Your task to perform on an android device: turn pop-ups on in chrome Image 0: 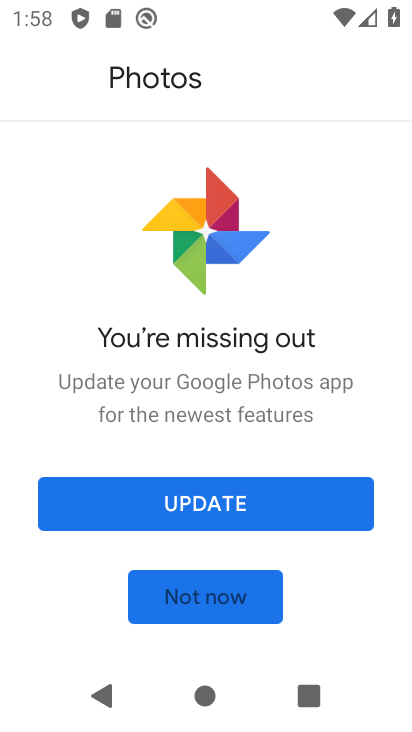
Step 0: click (213, 490)
Your task to perform on an android device: turn pop-ups on in chrome Image 1: 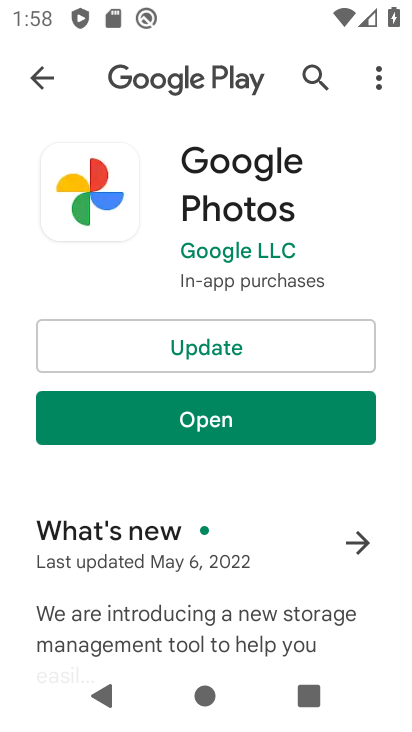
Step 1: press home button
Your task to perform on an android device: turn pop-ups on in chrome Image 2: 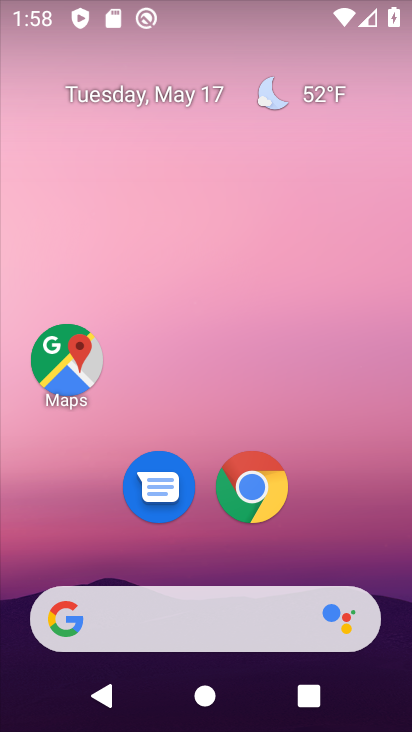
Step 2: click (251, 481)
Your task to perform on an android device: turn pop-ups on in chrome Image 3: 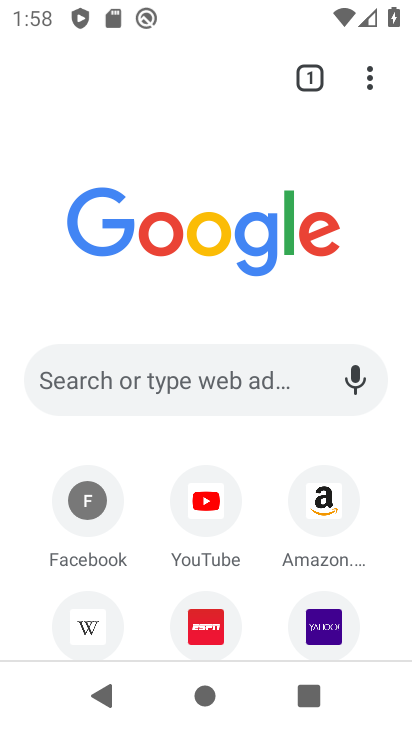
Step 3: click (367, 67)
Your task to perform on an android device: turn pop-ups on in chrome Image 4: 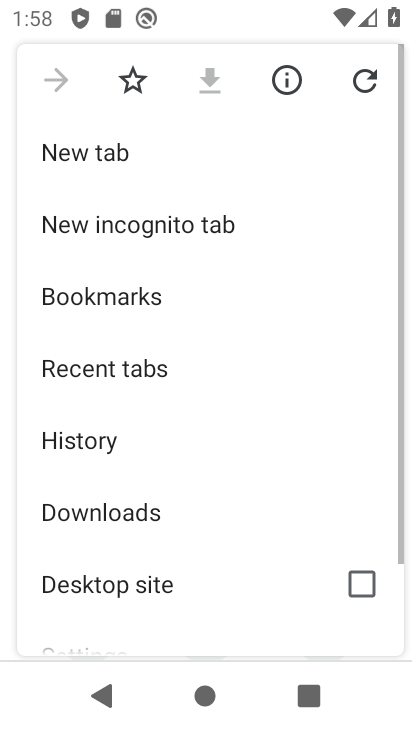
Step 4: drag from (212, 568) to (224, 250)
Your task to perform on an android device: turn pop-ups on in chrome Image 5: 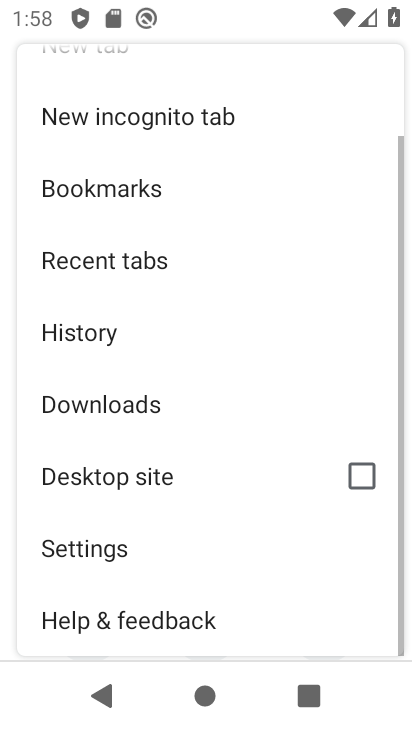
Step 5: drag from (242, 552) to (244, 324)
Your task to perform on an android device: turn pop-ups on in chrome Image 6: 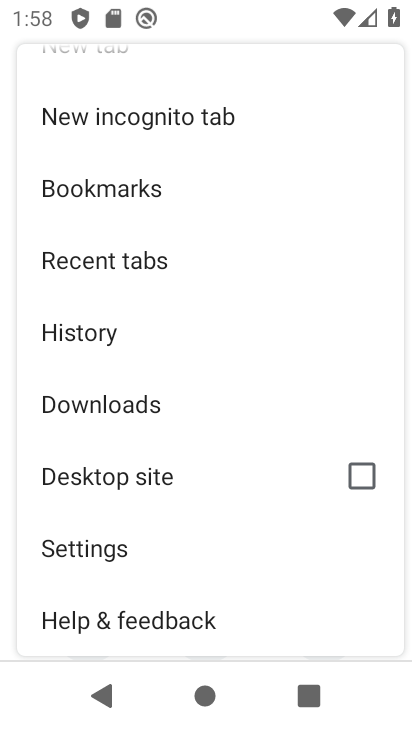
Step 6: click (90, 551)
Your task to perform on an android device: turn pop-ups on in chrome Image 7: 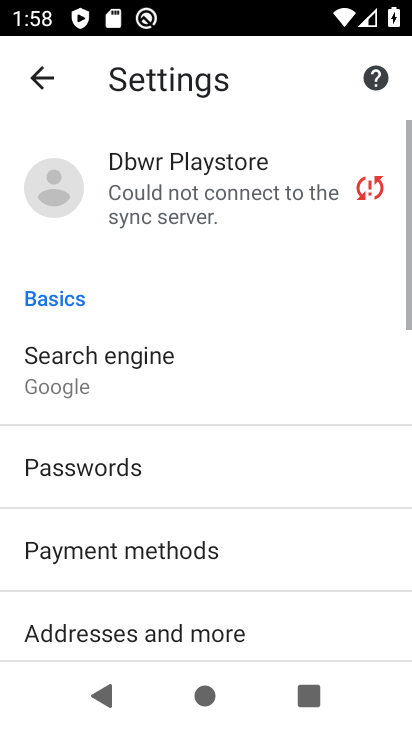
Step 7: drag from (274, 579) to (299, 289)
Your task to perform on an android device: turn pop-ups on in chrome Image 8: 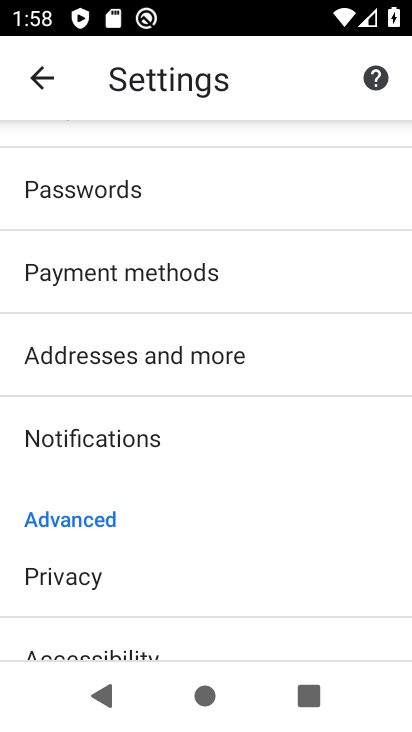
Step 8: drag from (228, 540) to (236, 447)
Your task to perform on an android device: turn pop-ups on in chrome Image 9: 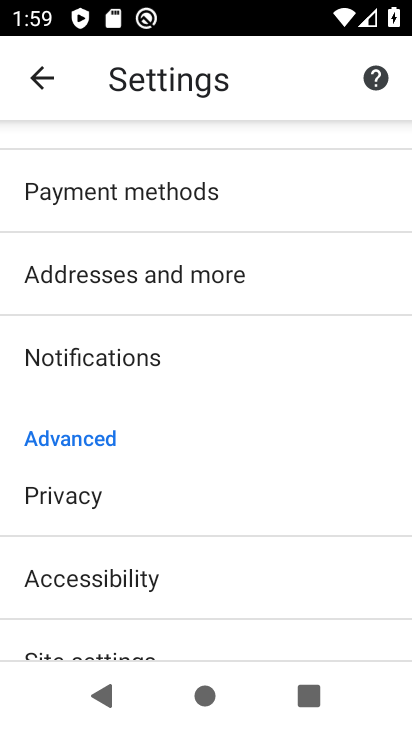
Step 9: drag from (275, 595) to (311, 364)
Your task to perform on an android device: turn pop-ups on in chrome Image 10: 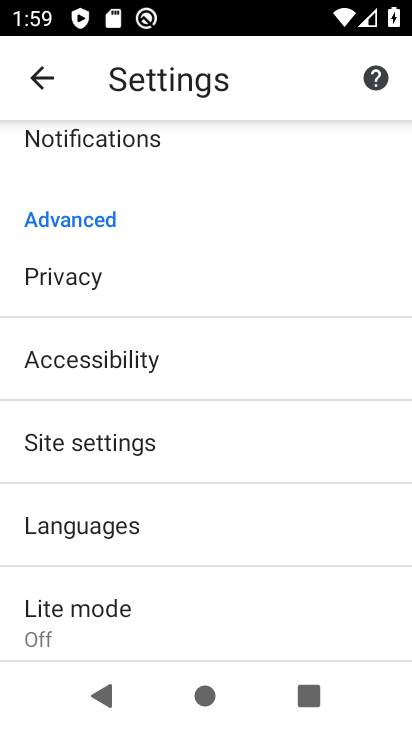
Step 10: click (73, 454)
Your task to perform on an android device: turn pop-ups on in chrome Image 11: 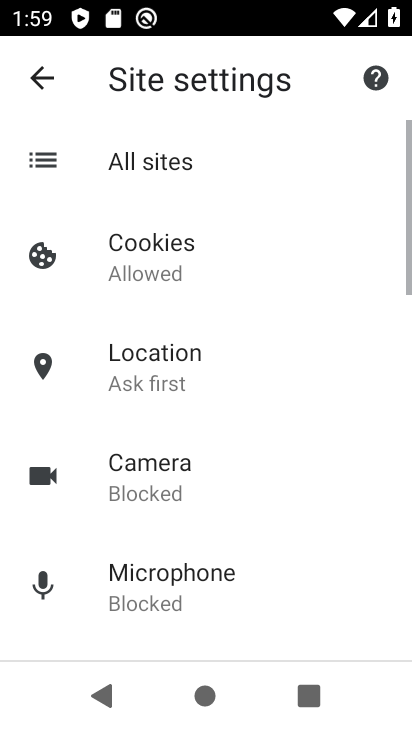
Step 11: drag from (284, 615) to (331, 291)
Your task to perform on an android device: turn pop-ups on in chrome Image 12: 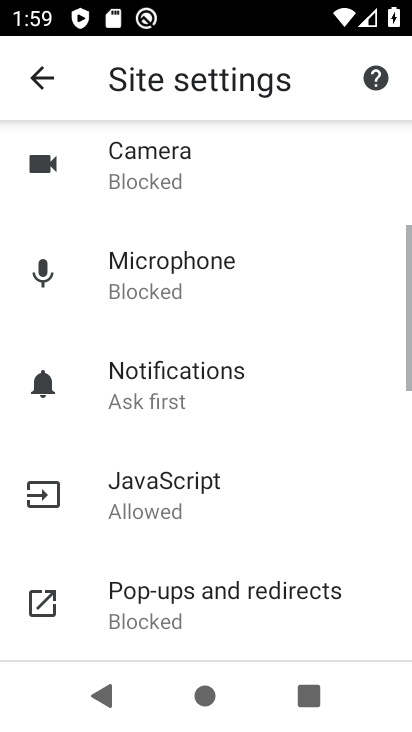
Step 12: click (141, 610)
Your task to perform on an android device: turn pop-ups on in chrome Image 13: 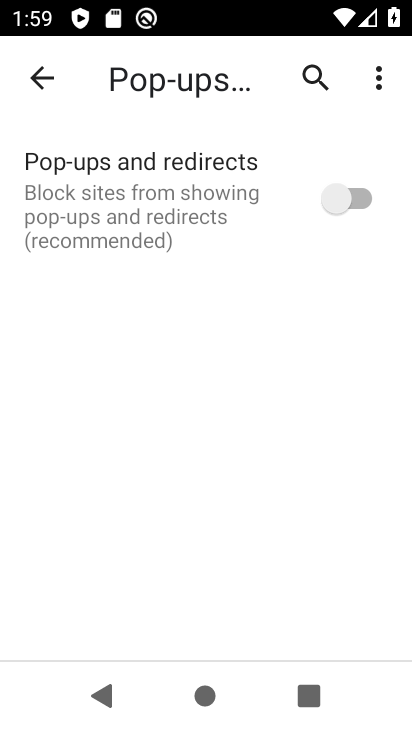
Step 13: click (365, 197)
Your task to perform on an android device: turn pop-ups on in chrome Image 14: 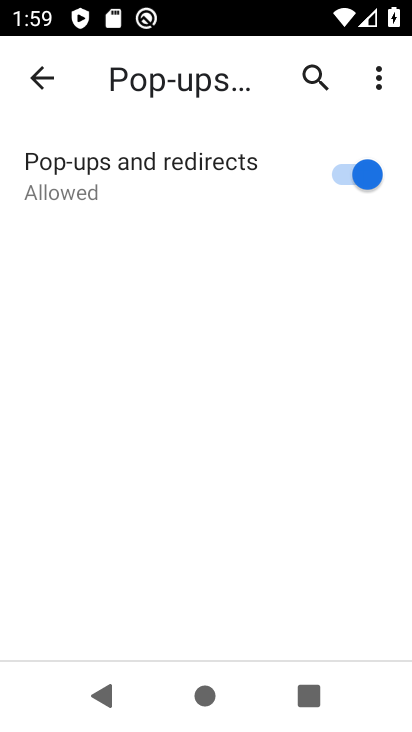
Step 14: task complete